Your task to perform on an android device: Do I have any events today? Image 0: 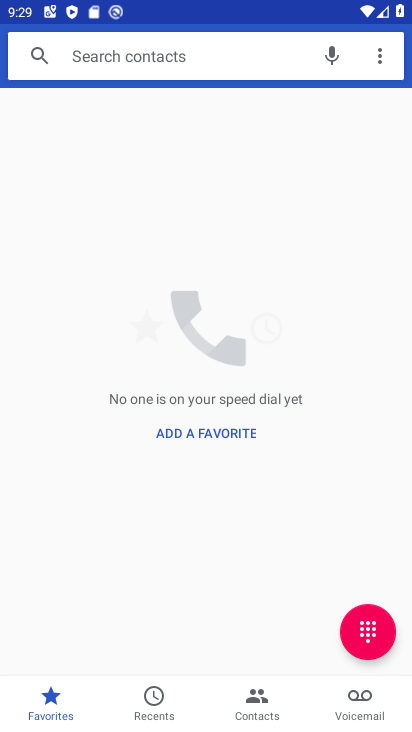
Step 0: press home button
Your task to perform on an android device: Do I have any events today? Image 1: 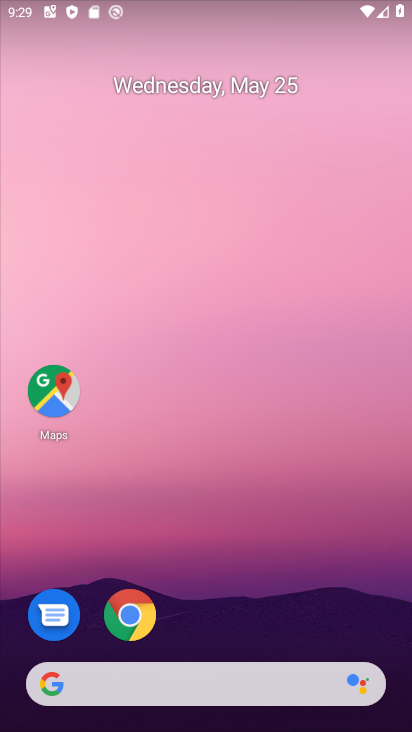
Step 1: drag from (204, 532) to (183, 41)
Your task to perform on an android device: Do I have any events today? Image 2: 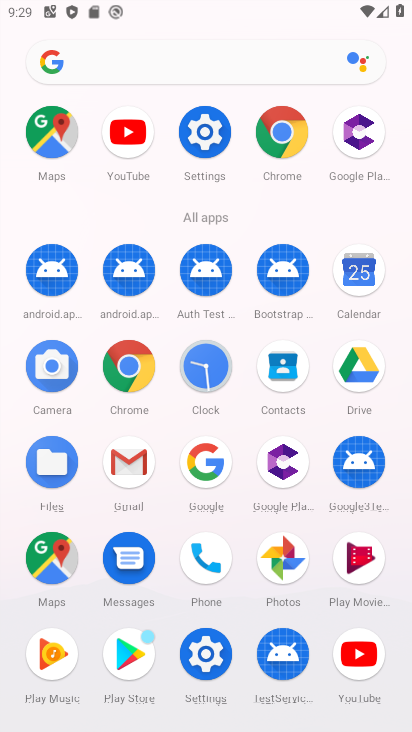
Step 2: click (351, 266)
Your task to perform on an android device: Do I have any events today? Image 3: 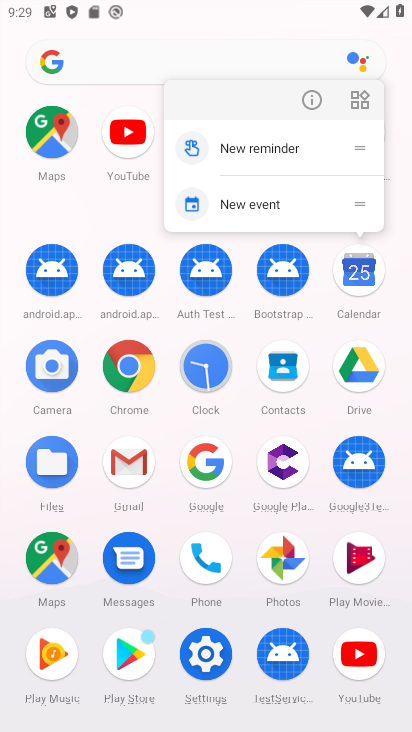
Step 3: click (357, 276)
Your task to perform on an android device: Do I have any events today? Image 4: 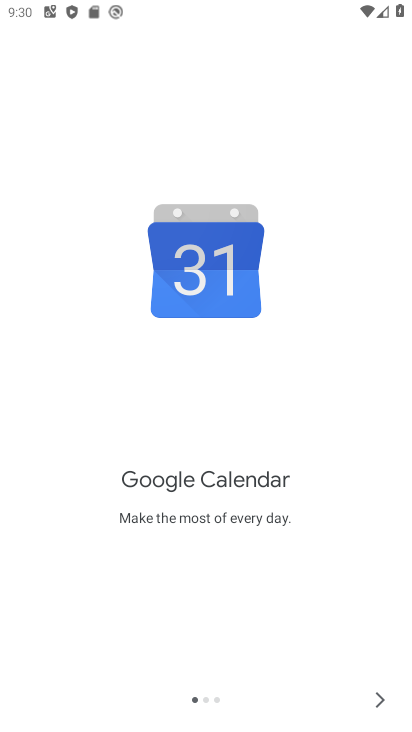
Step 4: click (376, 697)
Your task to perform on an android device: Do I have any events today? Image 5: 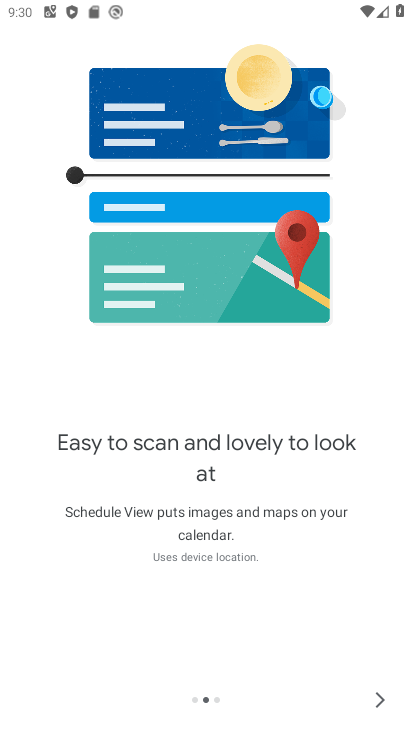
Step 5: click (376, 697)
Your task to perform on an android device: Do I have any events today? Image 6: 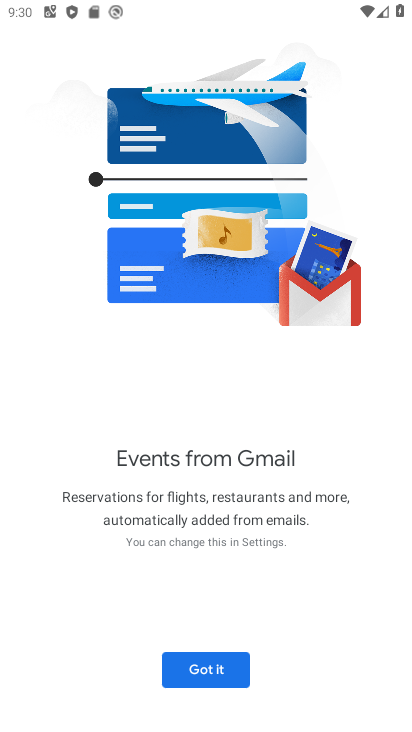
Step 6: click (236, 662)
Your task to perform on an android device: Do I have any events today? Image 7: 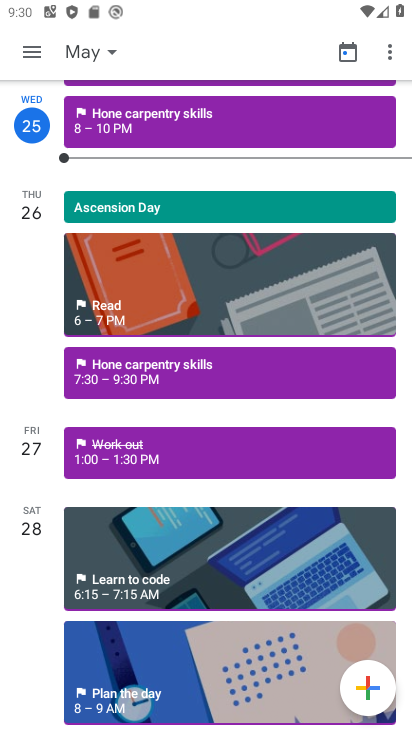
Step 7: task complete